Your task to perform on an android device: change alarm snooze length Image 0: 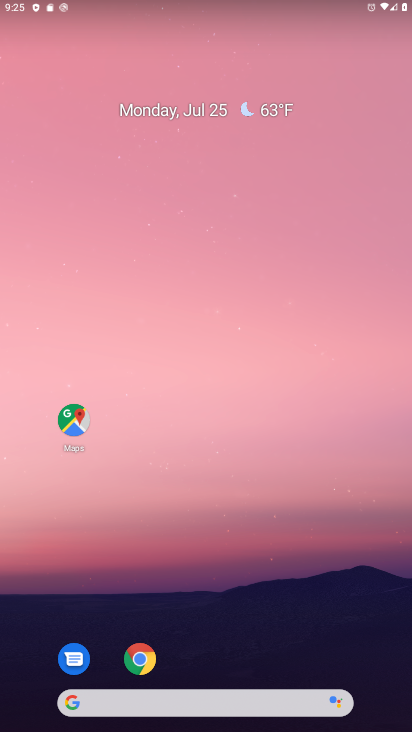
Step 0: drag from (192, 718) to (199, 176)
Your task to perform on an android device: change alarm snooze length Image 1: 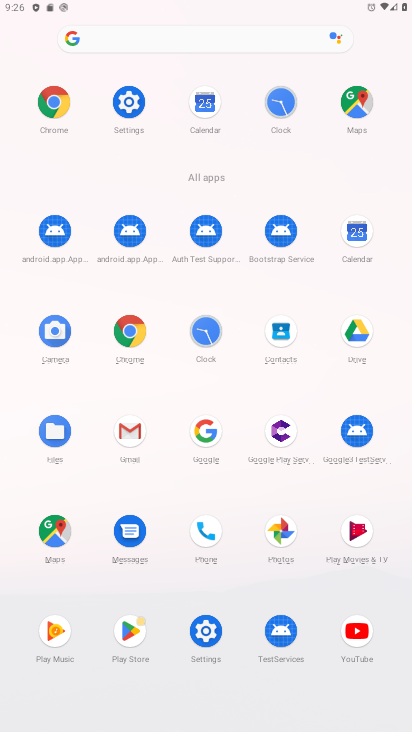
Step 1: click (205, 335)
Your task to perform on an android device: change alarm snooze length Image 2: 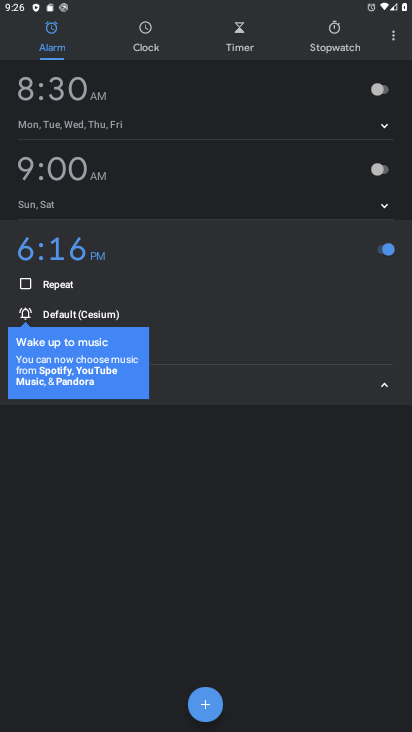
Step 2: click (394, 42)
Your task to perform on an android device: change alarm snooze length Image 3: 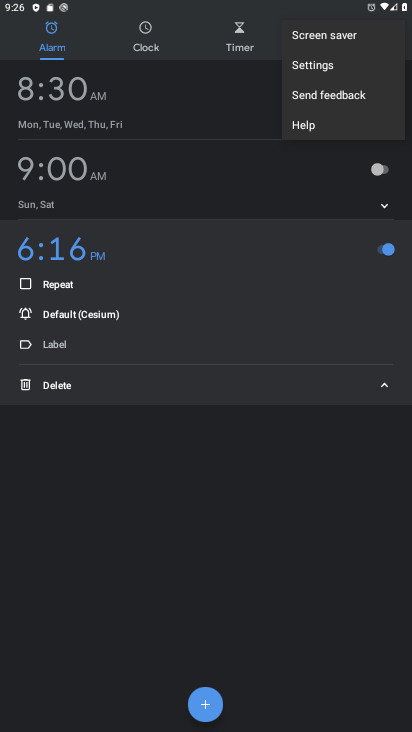
Step 3: click (311, 66)
Your task to perform on an android device: change alarm snooze length Image 4: 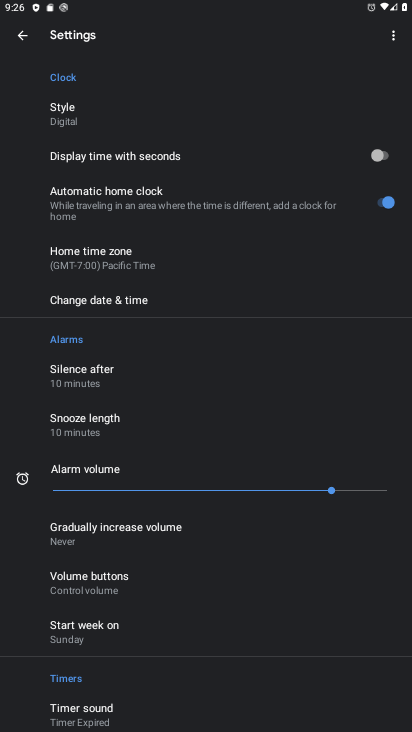
Step 4: click (81, 421)
Your task to perform on an android device: change alarm snooze length Image 5: 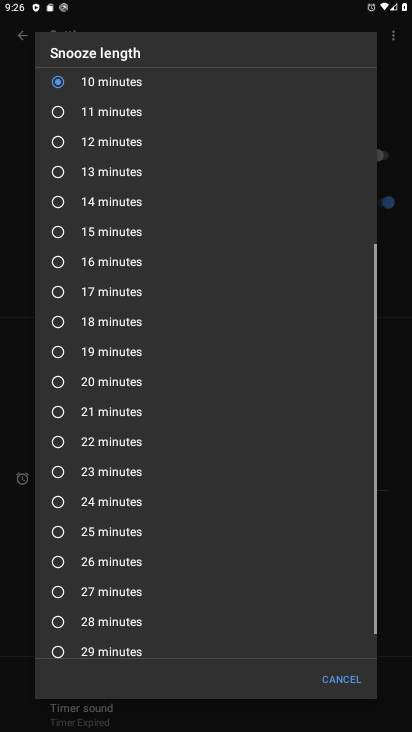
Step 5: click (56, 414)
Your task to perform on an android device: change alarm snooze length Image 6: 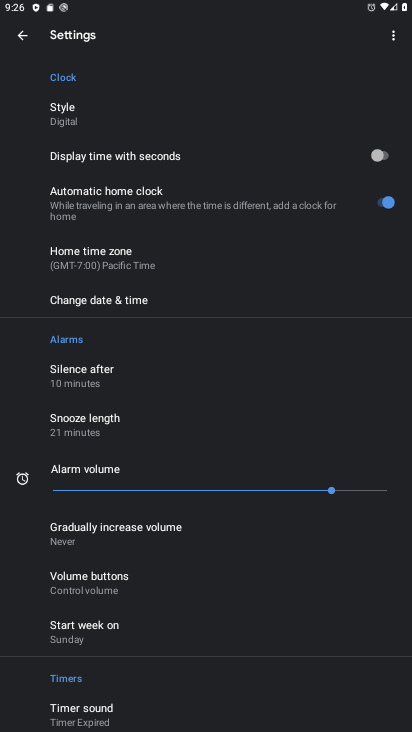
Step 6: task complete